Your task to perform on an android device: change the clock display to analog Image 0: 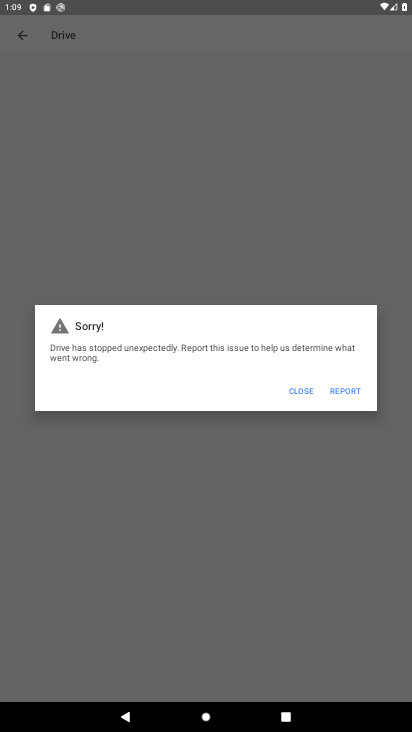
Step 0: press home button
Your task to perform on an android device: change the clock display to analog Image 1: 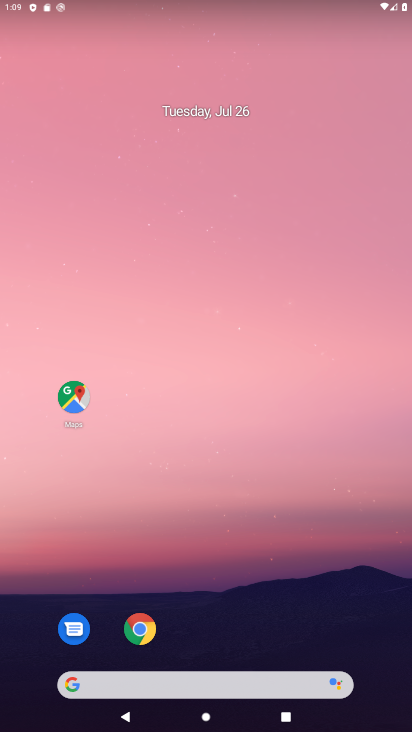
Step 1: drag from (274, 485) to (295, 94)
Your task to perform on an android device: change the clock display to analog Image 2: 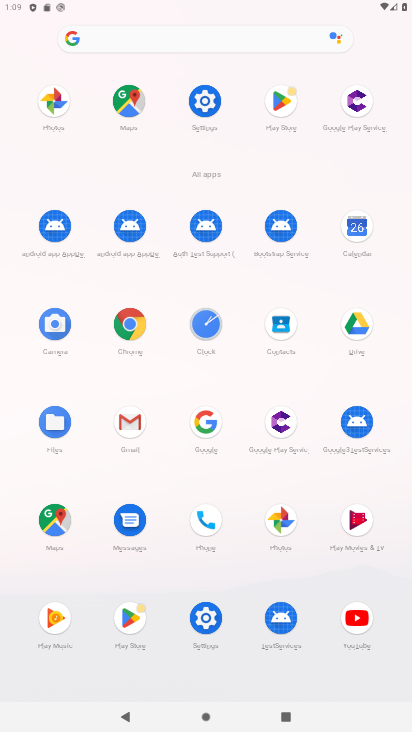
Step 2: click (200, 340)
Your task to perform on an android device: change the clock display to analog Image 3: 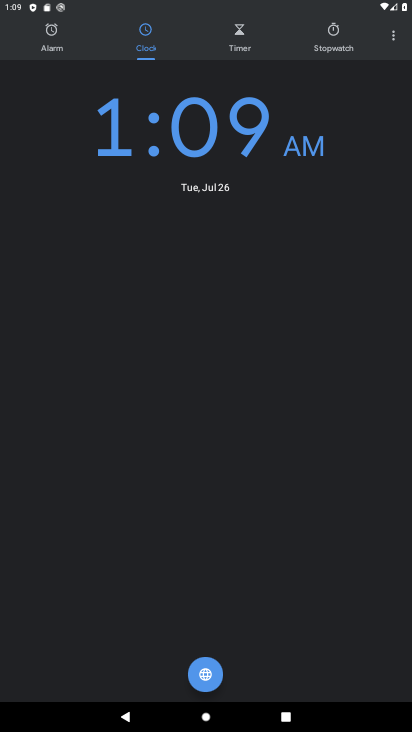
Step 3: click (394, 39)
Your task to perform on an android device: change the clock display to analog Image 4: 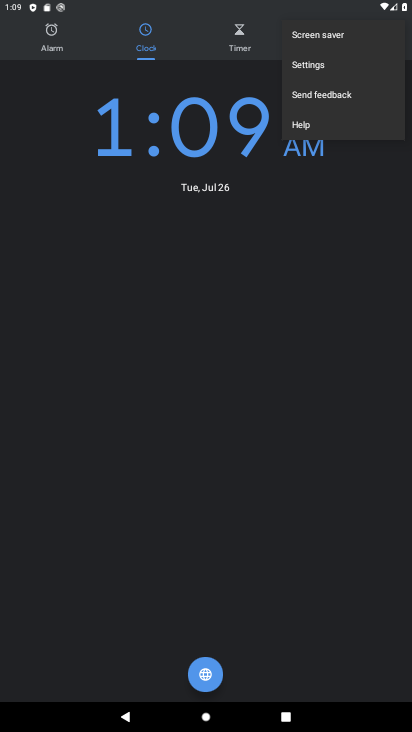
Step 4: click (323, 64)
Your task to perform on an android device: change the clock display to analog Image 5: 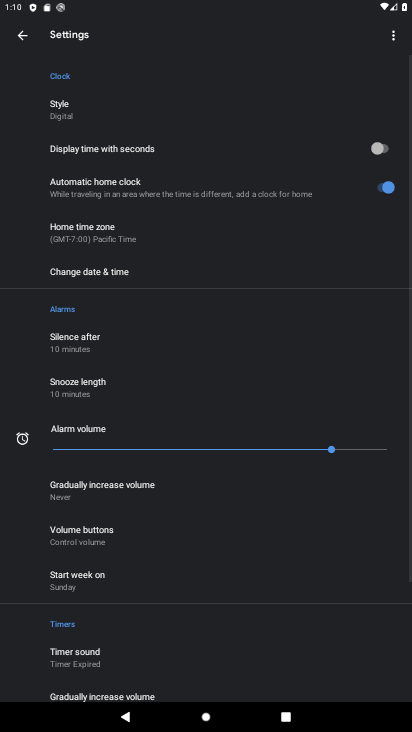
Step 5: click (110, 115)
Your task to perform on an android device: change the clock display to analog Image 6: 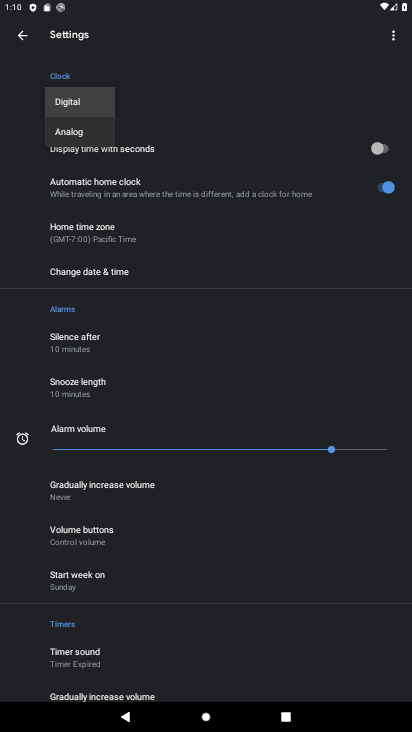
Step 6: click (85, 138)
Your task to perform on an android device: change the clock display to analog Image 7: 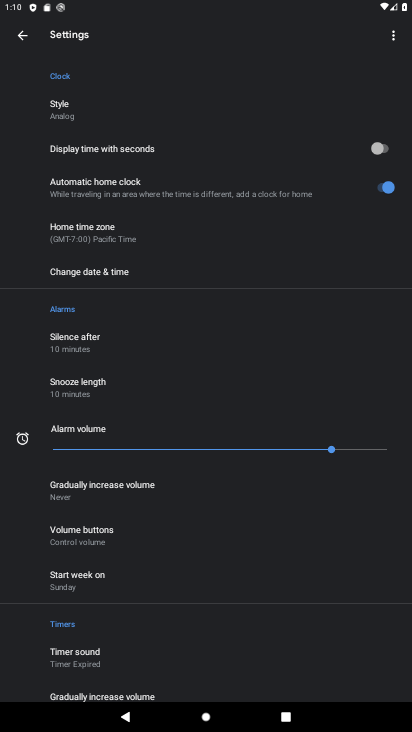
Step 7: task complete